Your task to perform on an android device: Go to ESPN.com Image 0: 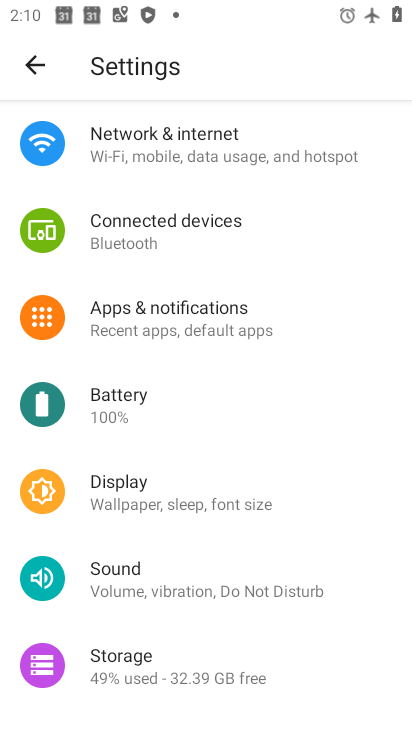
Step 0: press home button
Your task to perform on an android device: Go to ESPN.com Image 1: 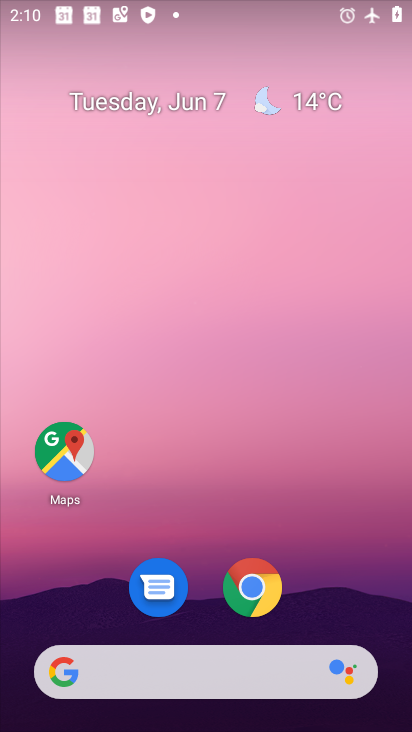
Step 1: click (263, 596)
Your task to perform on an android device: Go to ESPN.com Image 2: 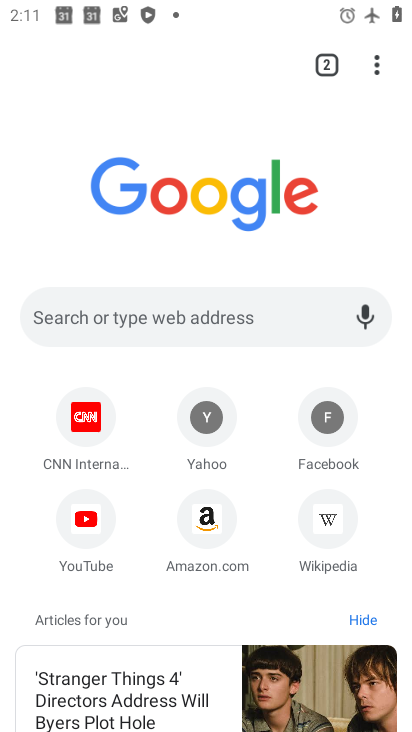
Step 2: click (198, 327)
Your task to perform on an android device: Go to ESPN.com Image 3: 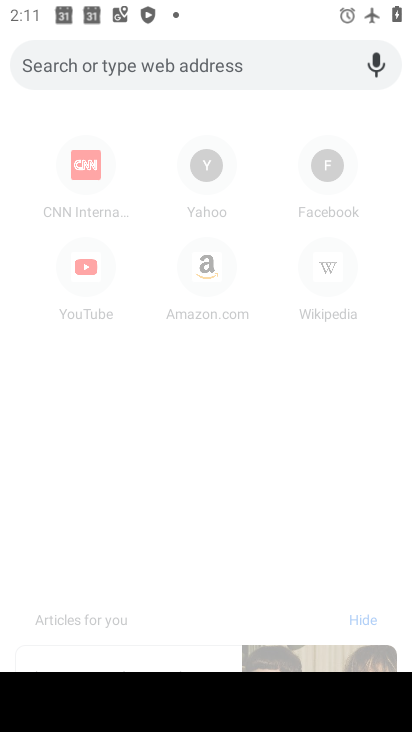
Step 3: type "espn"
Your task to perform on an android device: Go to ESPN.com Image 4: 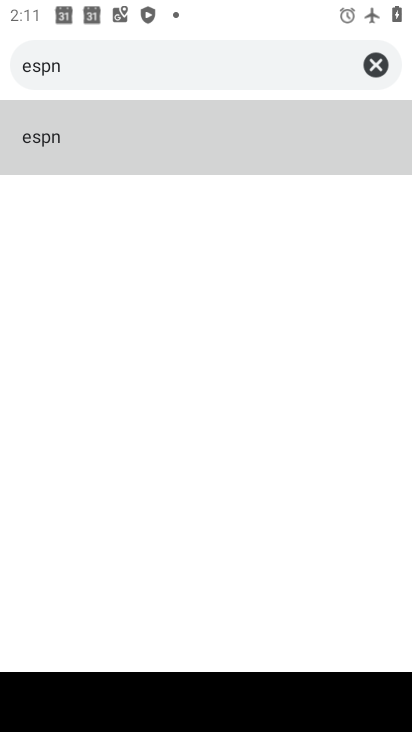
Step 4: task complete